Your task to perform on an android device: delete a single message in the gmail app Image 0: 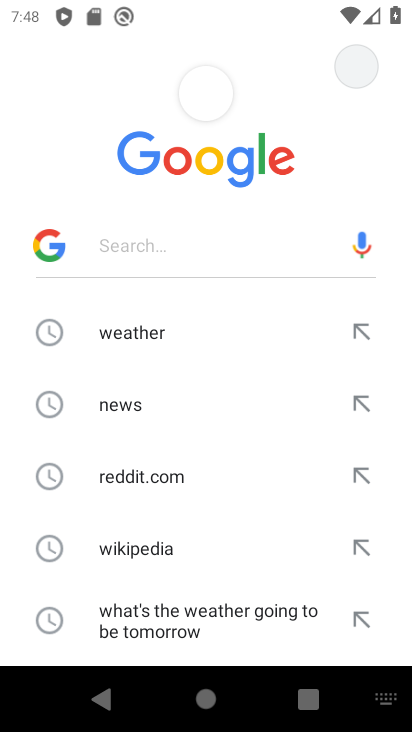
Step 0: press home button
Your task to perform on an android device: delete a single message in the gmail app Image 1: 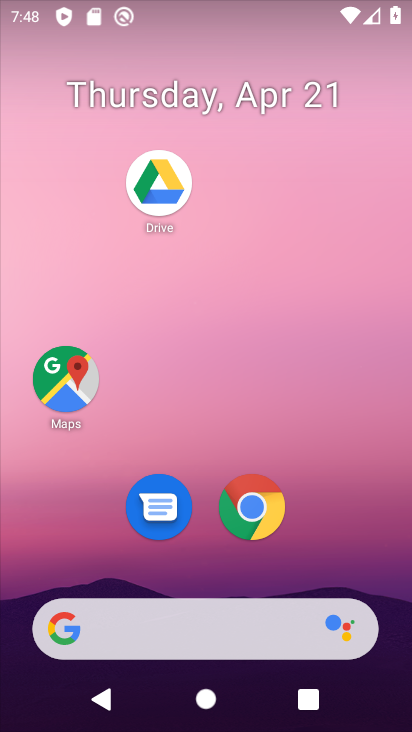
Step 1: drag from (360, 540) to (365, 153)
Your task to perform on an android device: delete a single message in the gmail app Image 2: 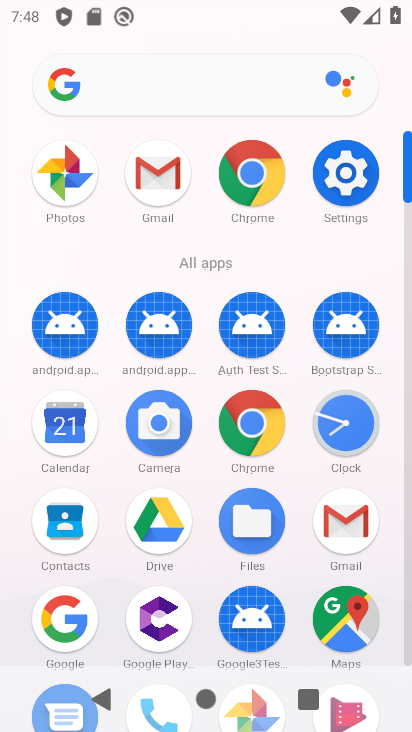
Step 2: click (365, 519)
Your task to perform on an android device: delete a single message in the gmail app Image 3: 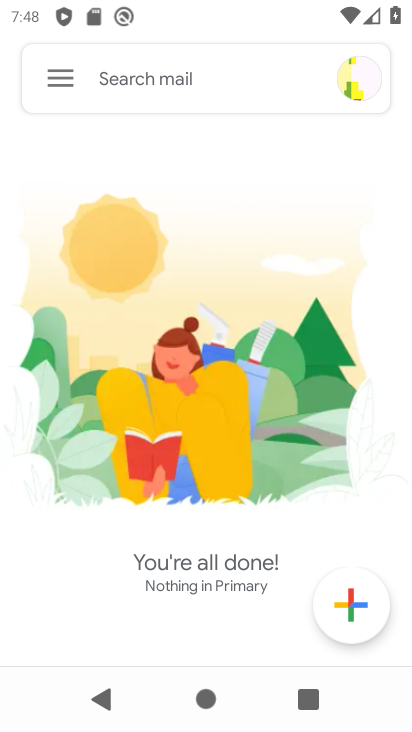
Step 3: click (52, 76)
Your task to perform on an android device: delete a single message in the gmail app Image 4: 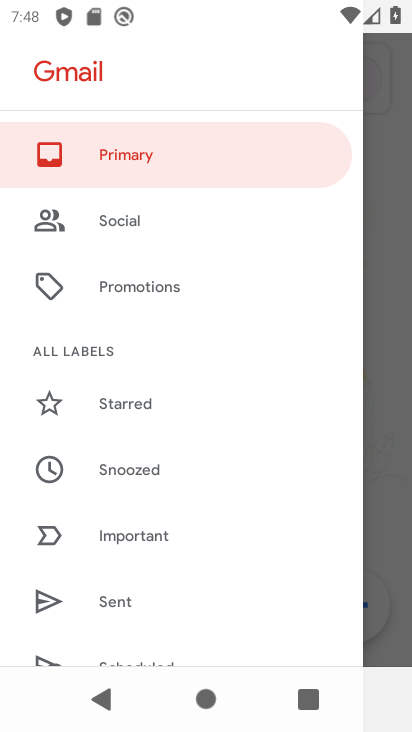
Step 4: drag from (269, 550) to (285, 382)
Your task to perform on an android device: delete a single message in the gmail app Image 5: 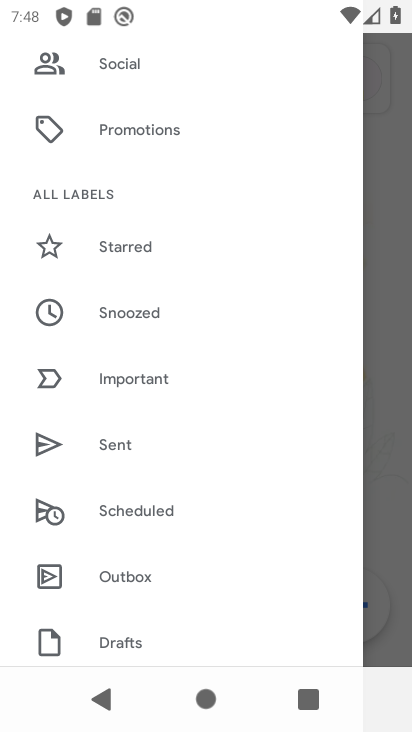
Step 5: drag from (282, 582) to (287, 373)
Your task to perform on an android device: delete a single message in the gmail app Image 6: 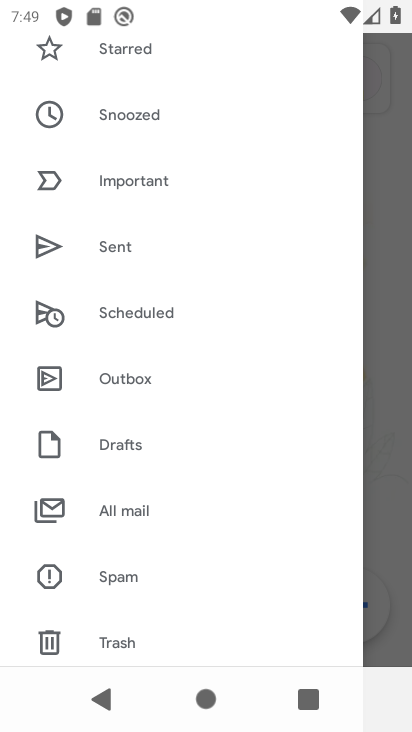
Step 6: drag from (268, 581) to (293, 378)
Your task to perform on an android device: delete a single message in the gmail app Image 7: 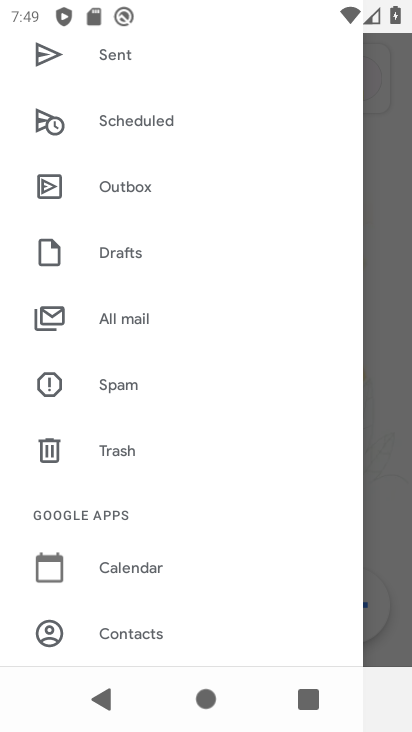
Step 7: drag from (263, 584) to (268, 336)
Your task to perform on an android device: delete a single message in the gmail app Image 8: 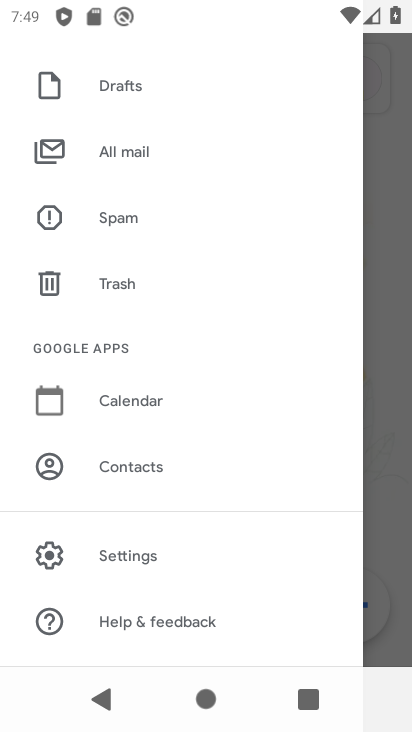
Step 8: drag from (257, 605) to (282, 380)
Your task to perform on an android device: delete a single message in the gmail app Image 9: 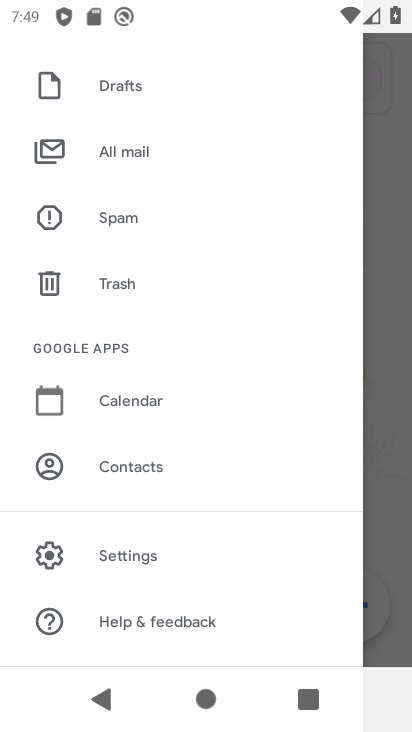
Step 9: drag from (307, 276) to (308, 460)
Your task to perform on an android device: delete a single message in the gmail app Image 10: 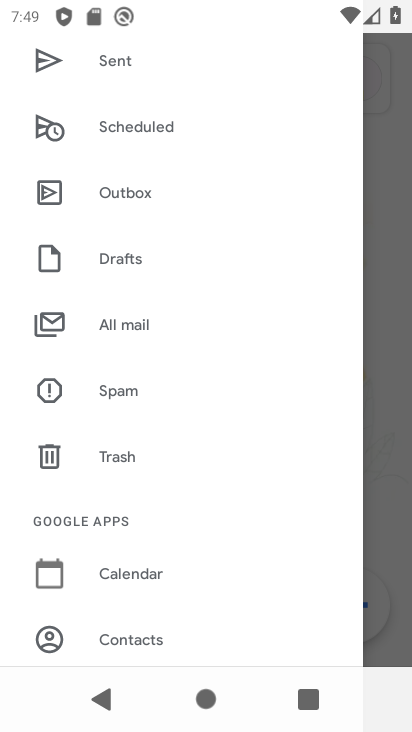
Step 10: drag from (309, 253) to (299, 433)
Your task to perform on an android device: delete a single message in the gmail app Image 11: 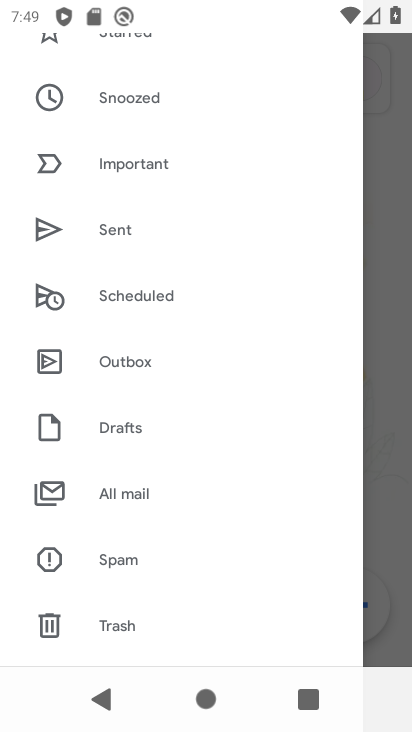
Step 11: drag from (299, 207) to (302, 386)
Your task to perform on an android device: delete a single message in the gmail app Image 12: 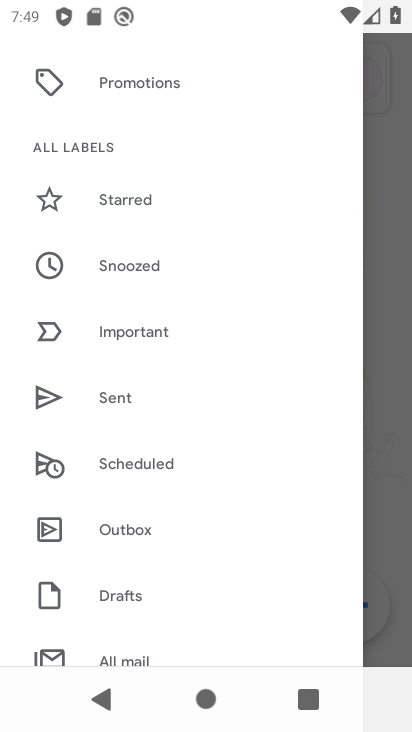
Step 12: drag from (294, 176) to (288, 360)
Your task to perform on an android device: delete a single message in the gmail app Image 13: 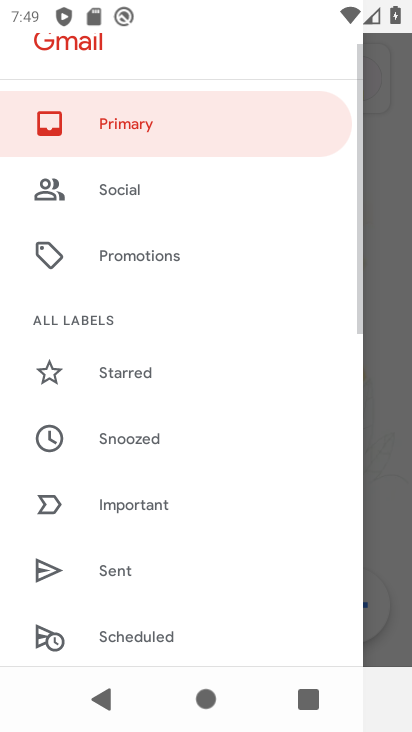
Step 13: drag from (274, 202) to (286, 351)
Your task to perform on an android device: delete a single message in the gmail app Image 14: 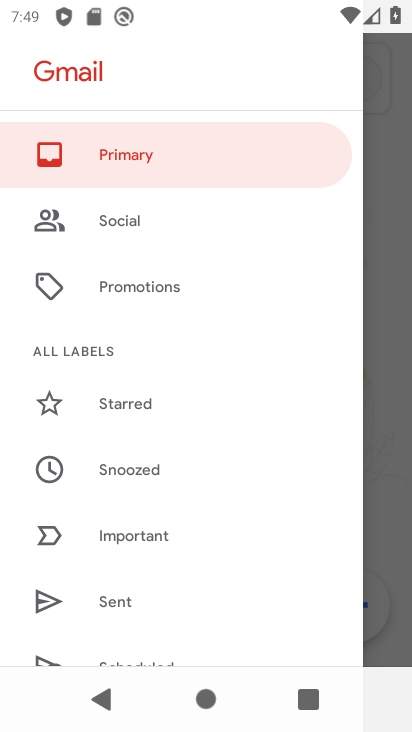
Step 14: click (181, 139)
Your task to perform on an android device: delete a single message in the gmail app Image 15: 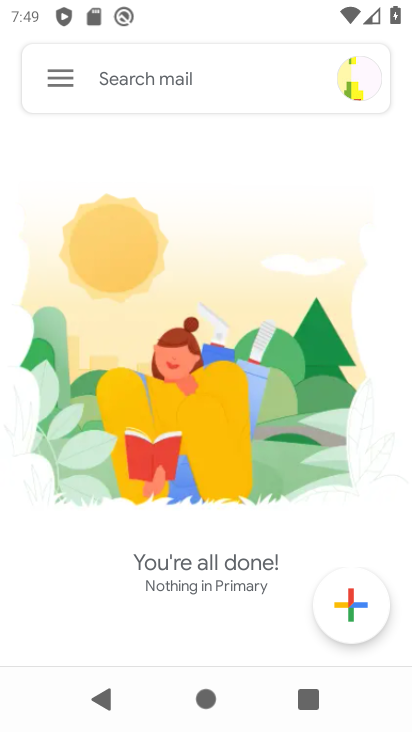
Step 15: task complete